Your task to perform on an android device: Open calendar and show me the fourth week of next month Image 0: 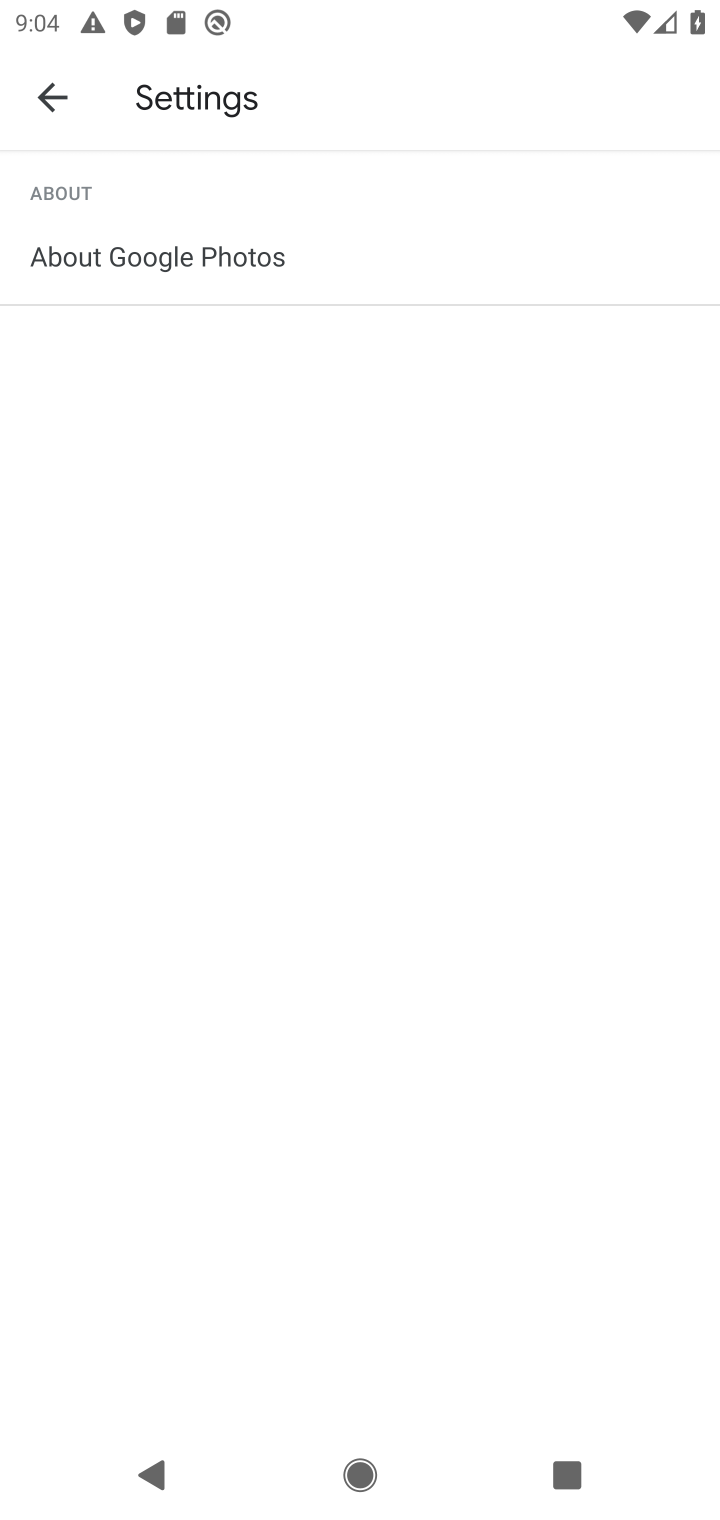
Step 0: press home button
Your task to perform on an android device: Open calendar and show me the fourth week of next month Image 1: 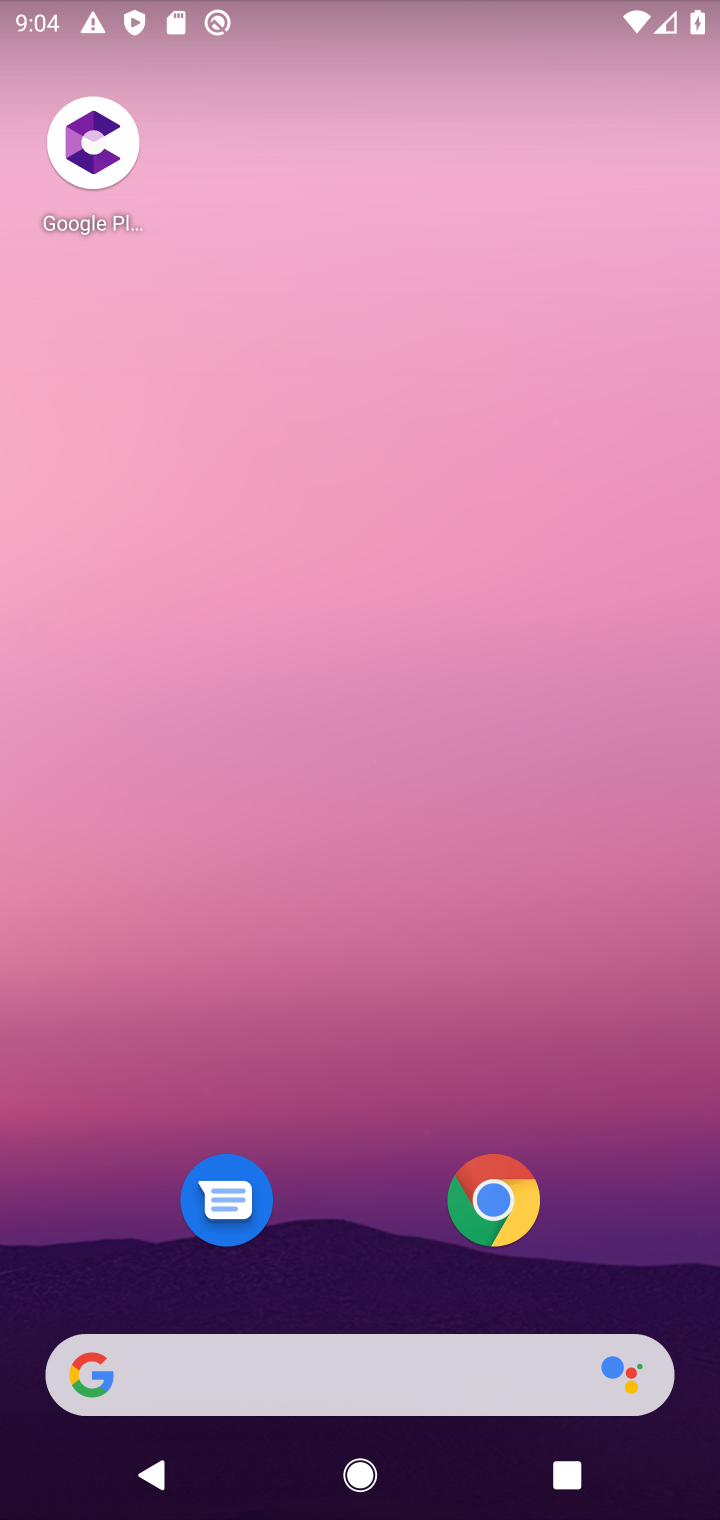
Step 1: drag from (289, 1373) to (382, 240)
Your task to perform on an android device: Open calendar and show me the fourth week of next month Image 2: 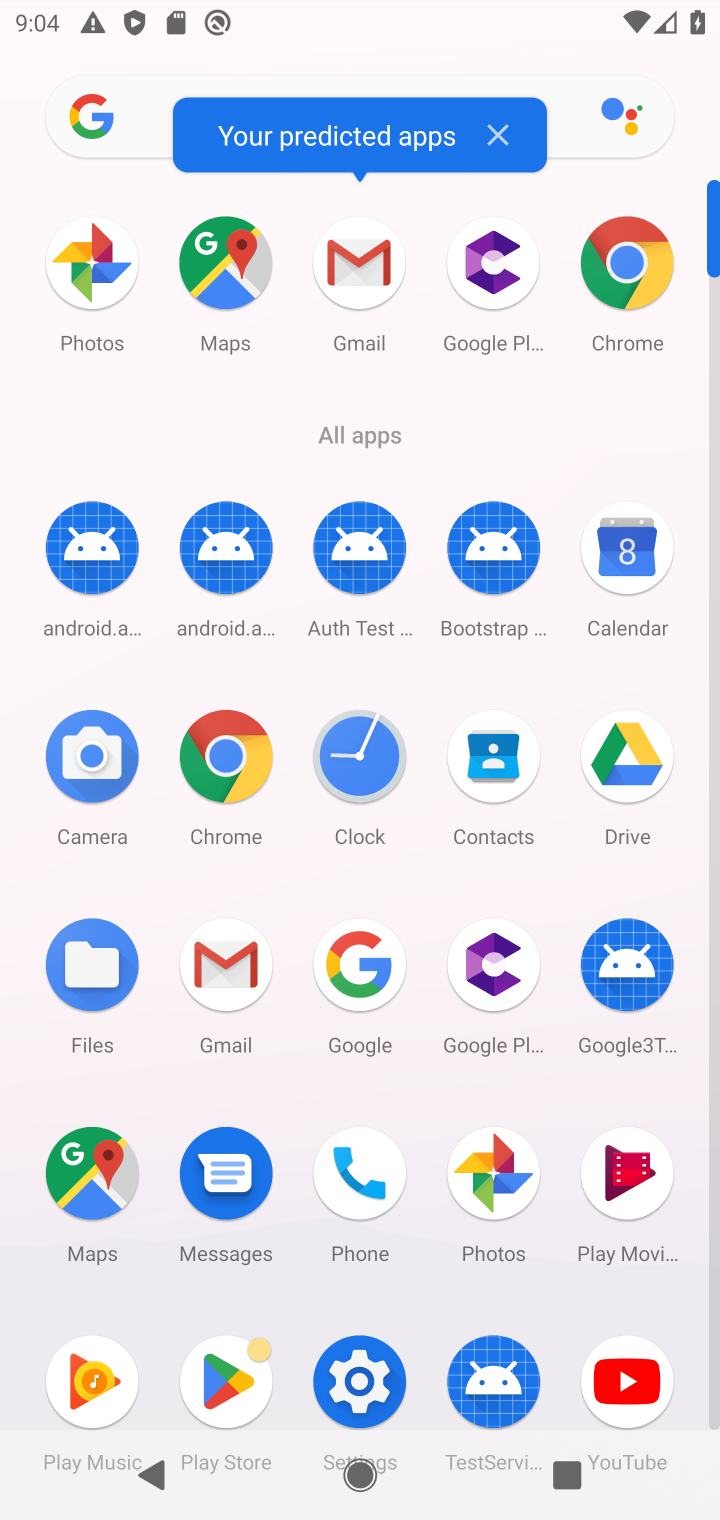
Step 2: click (631, 553)
Your task to perform on an android device: Open calendar and show me the fourth week of next month Image 3: 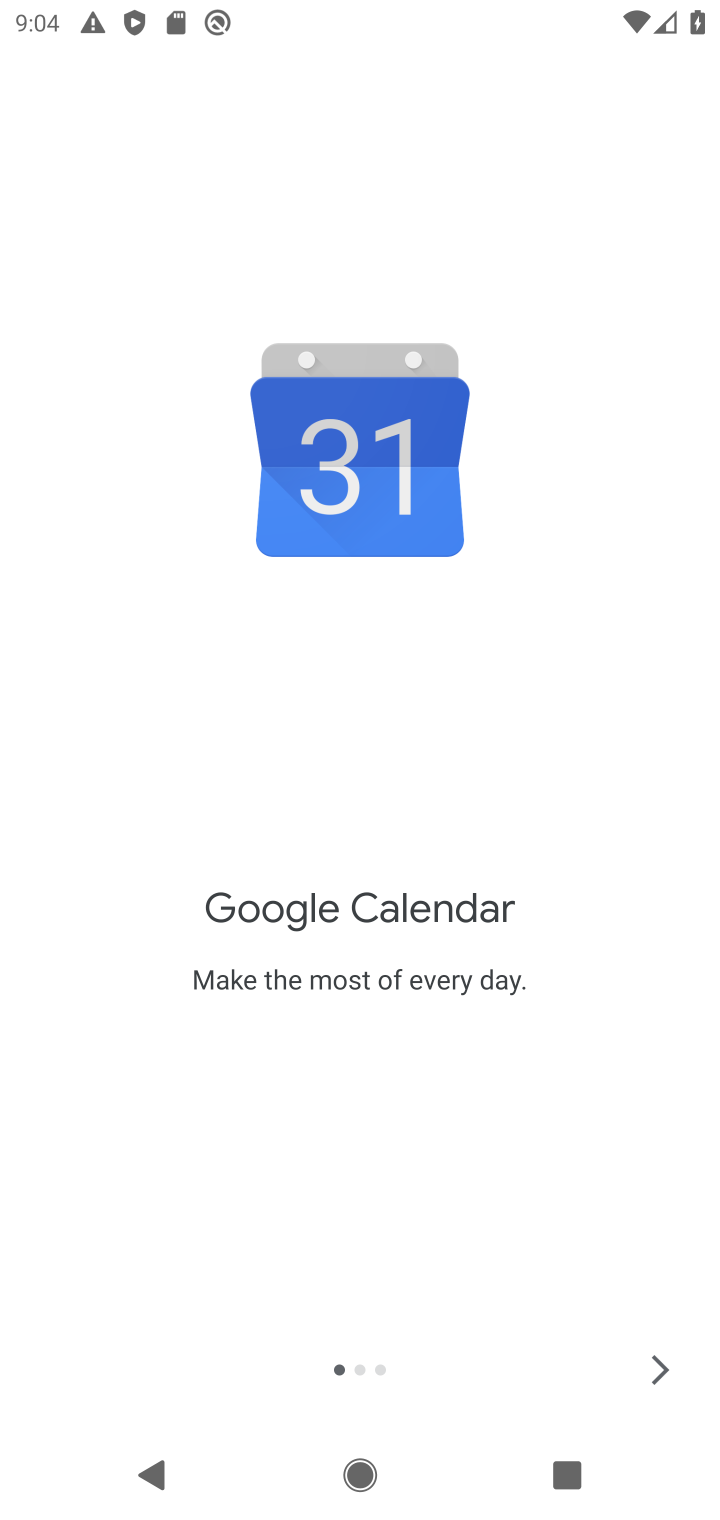
Step 3: click (633, 1377)
Your task to perform on an android device: Open calendar and show me the fourth week of next month Image 4: 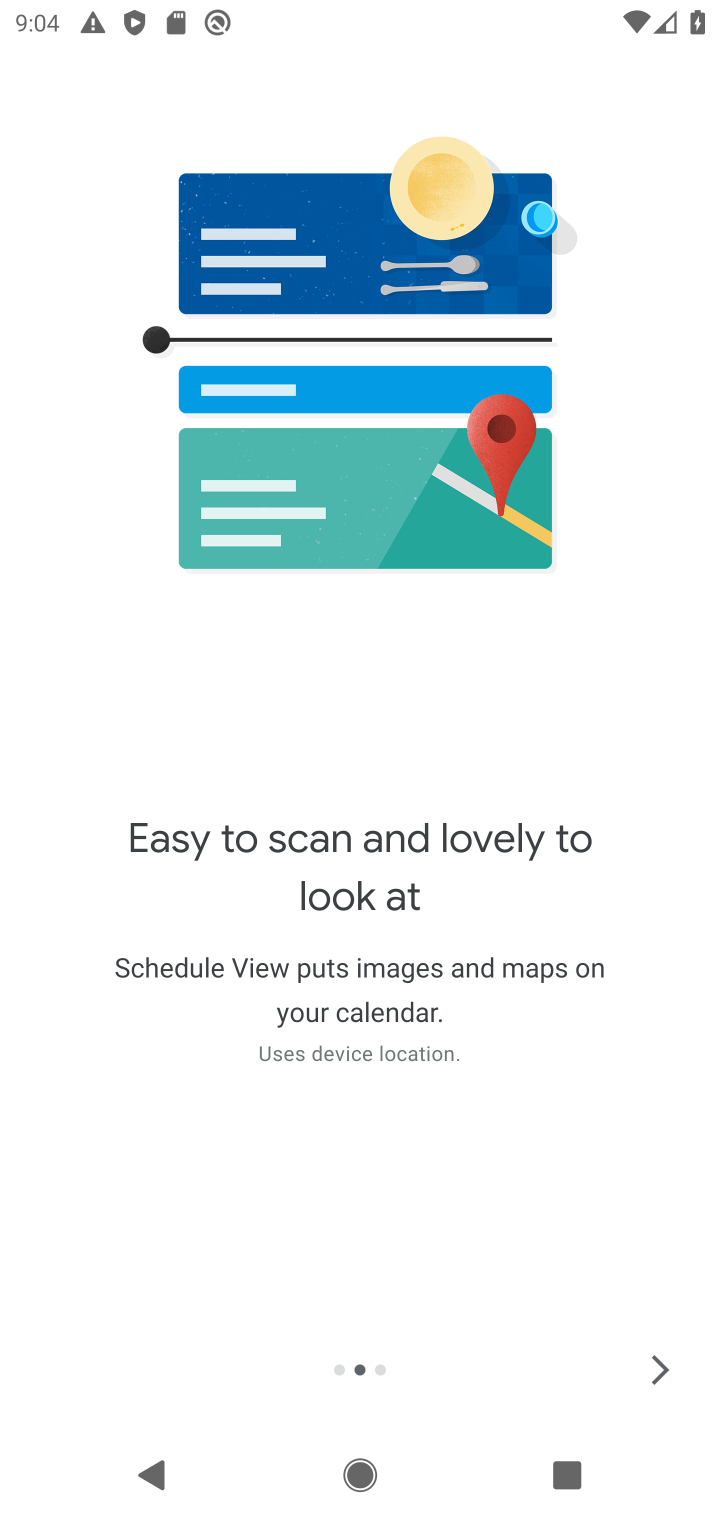
Step 4: click (660, 1362)
Your task to perform on an android device: Open calendar and show me the fourth week of next month Image 5: 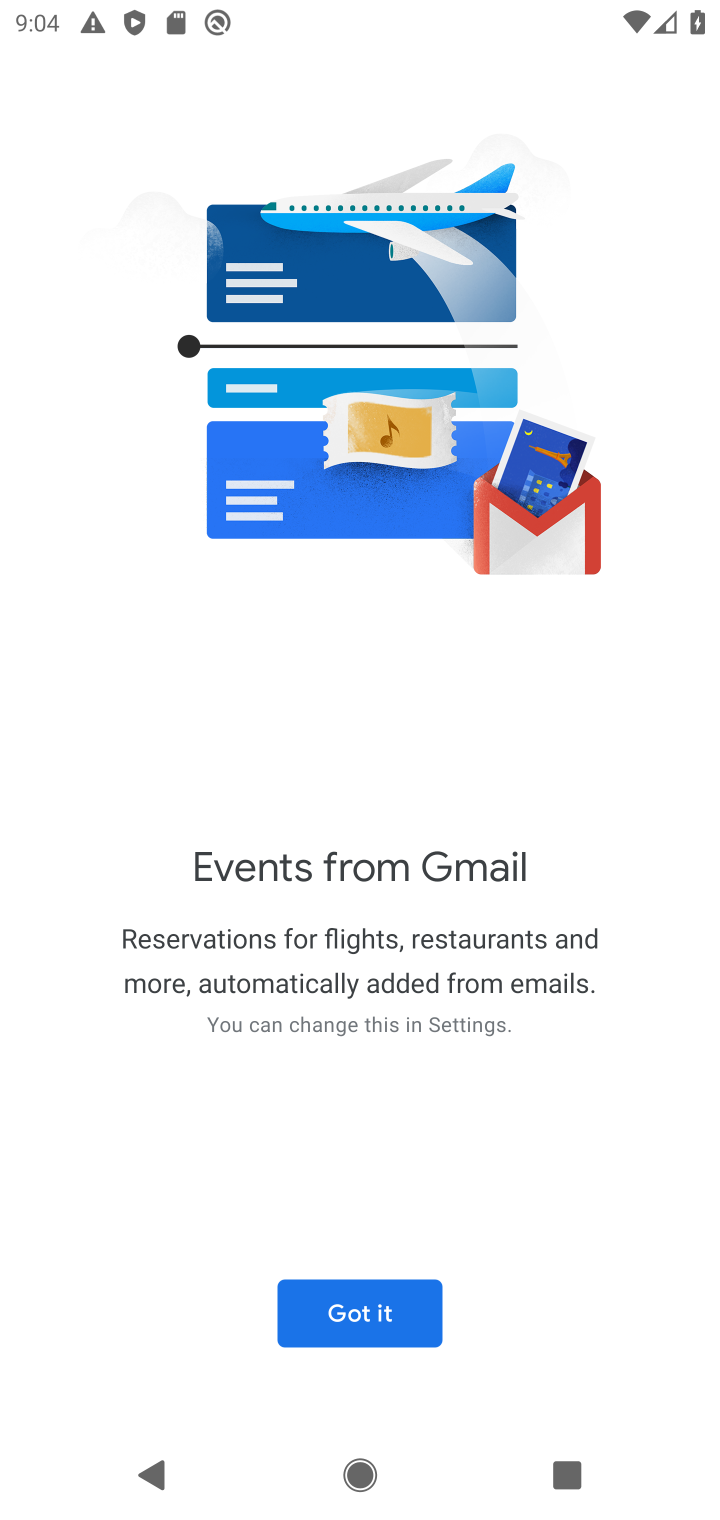
Step 5: click (416, 1321)
Your task to perform on an android device: Open calendar and show me the fourth week of next month Image 6: 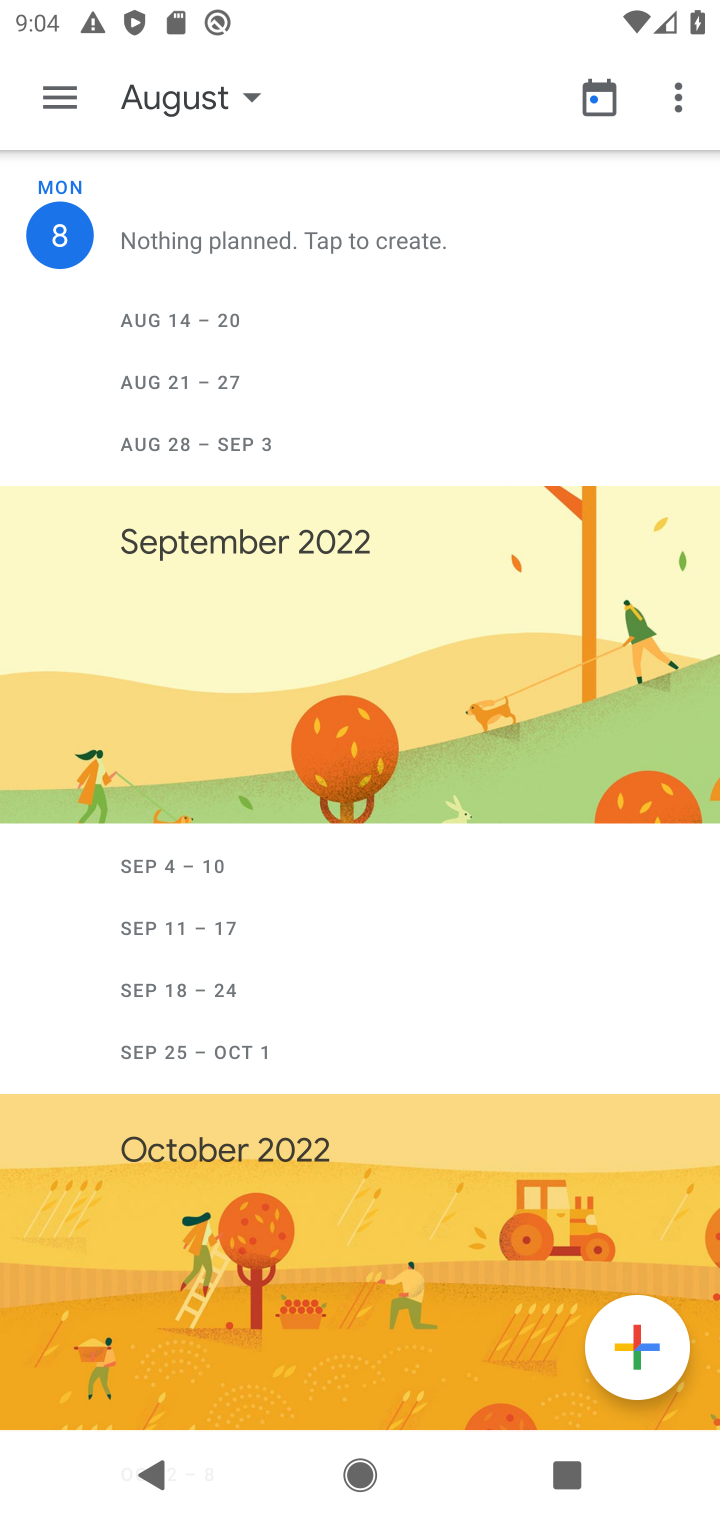
Step 6: click (188, 98)
Your task to perform on an android device: Open calendar and show me the fourth week of next month Image 7: 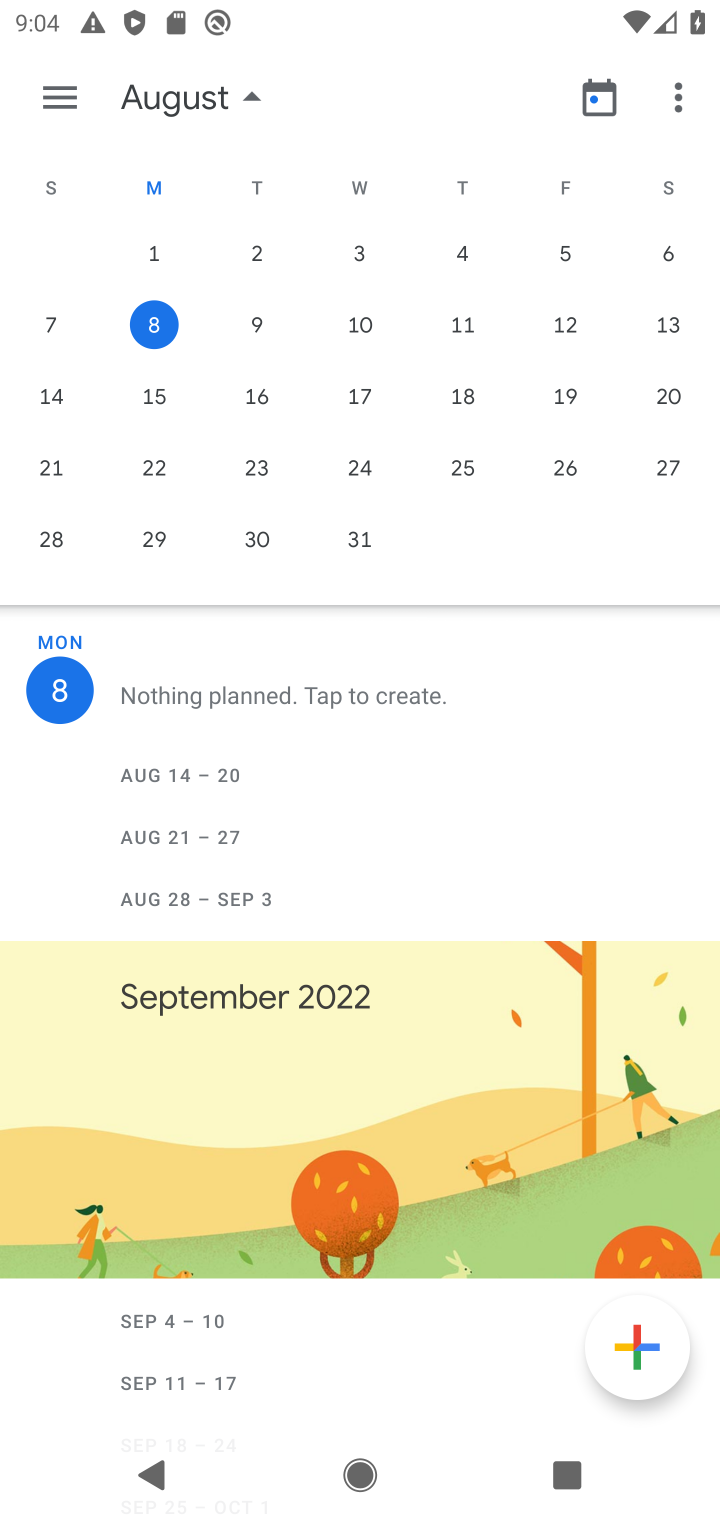
Step 7: drag from (644, 357) to (69, 401)
Your task to perform on an android device: Open calendar and show me the fourth week of next month Image 8: 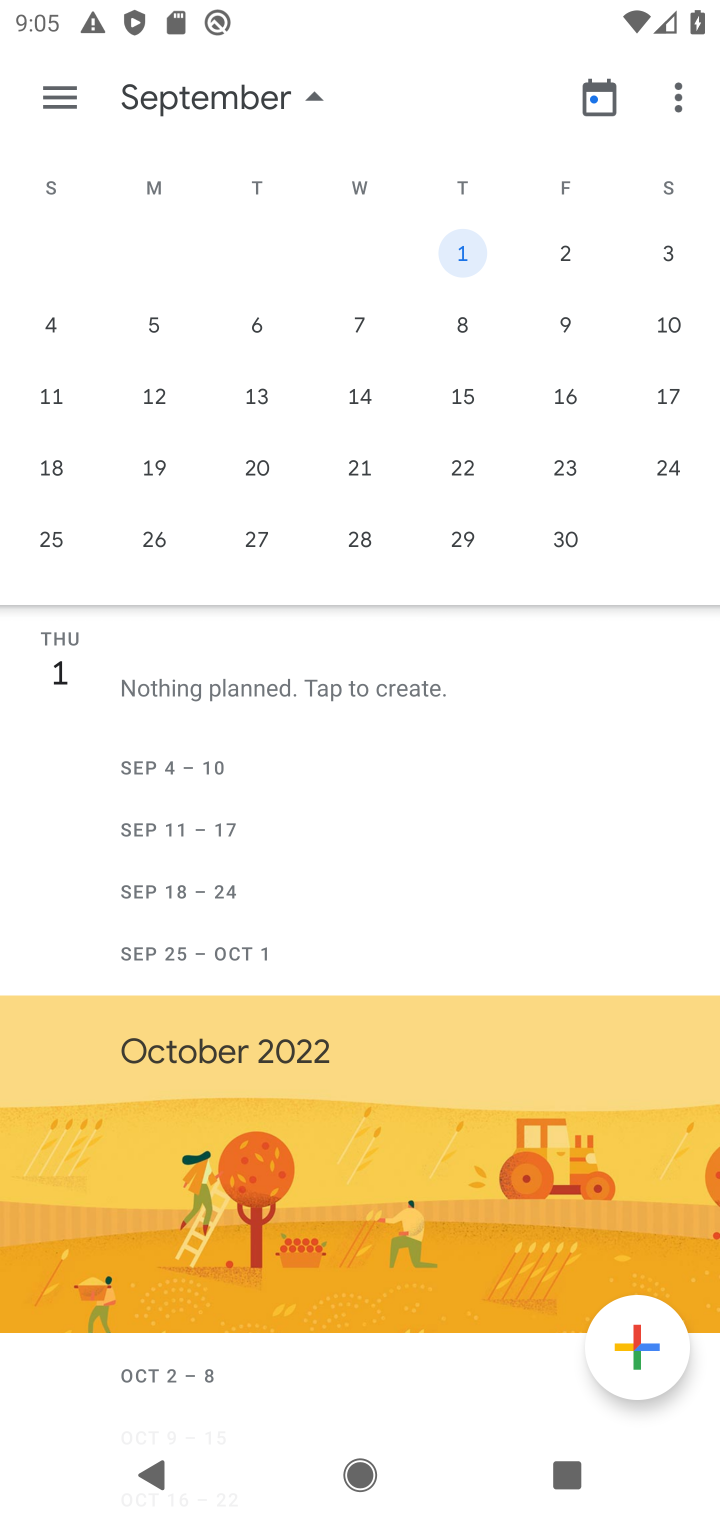
Step 8: click (58, 475)
Your task to perform on an android device: Open calendar and show me the fourth week of next month Image 9: 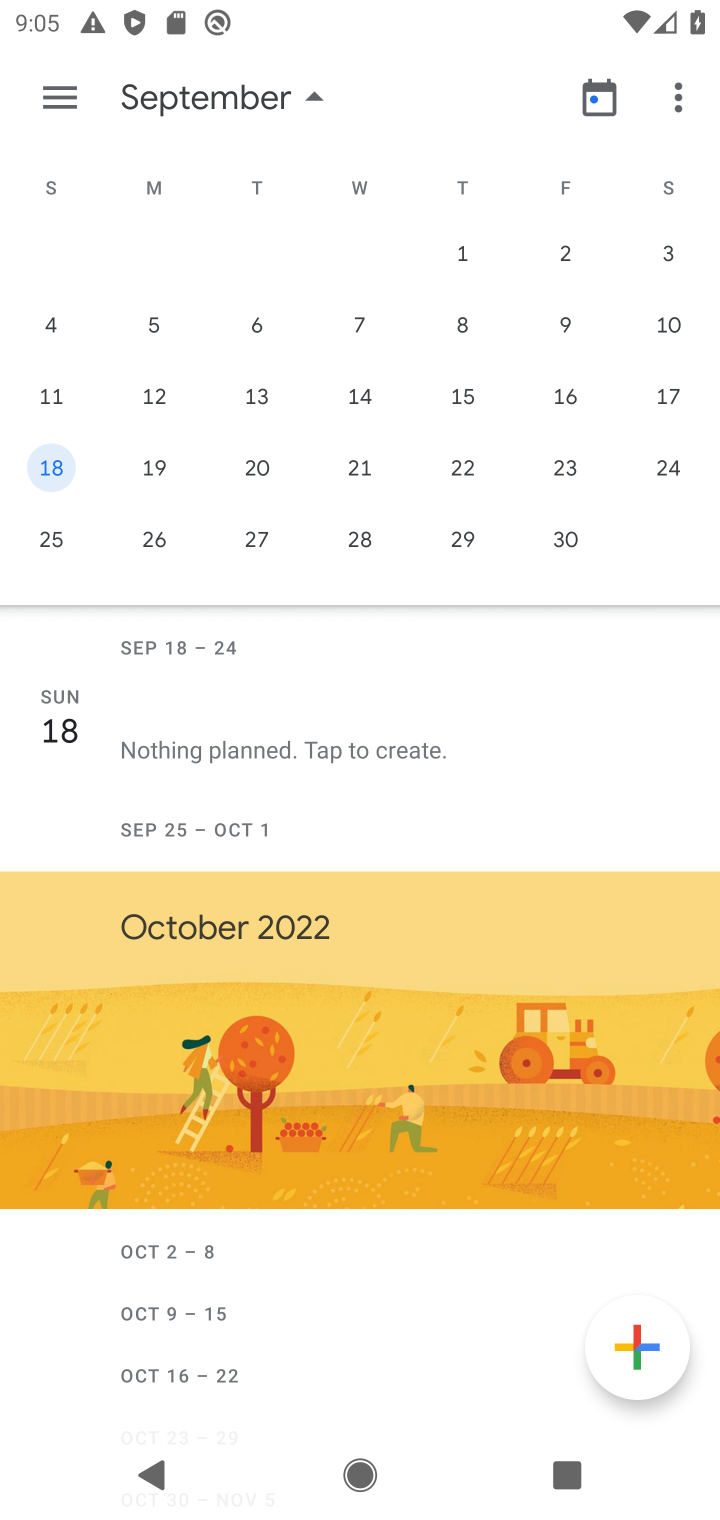
Step 9: click (46, 92)
Your task to perform on an android device: Open calendar and show me the fourth week of next month Image 10: 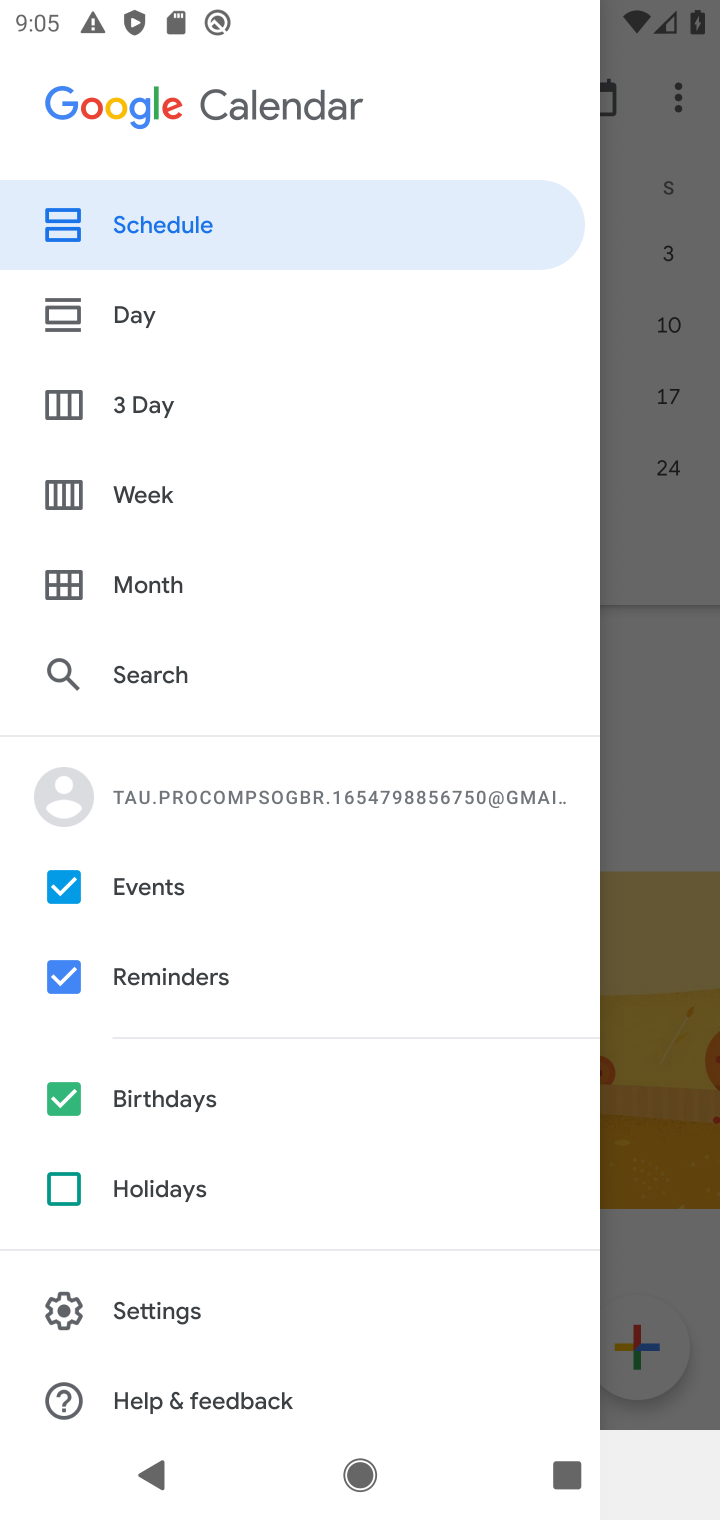
Step 10: click (146, 480)
Your task to perform on an android device: Open calendar and show me the fourth week of next month Image 11: 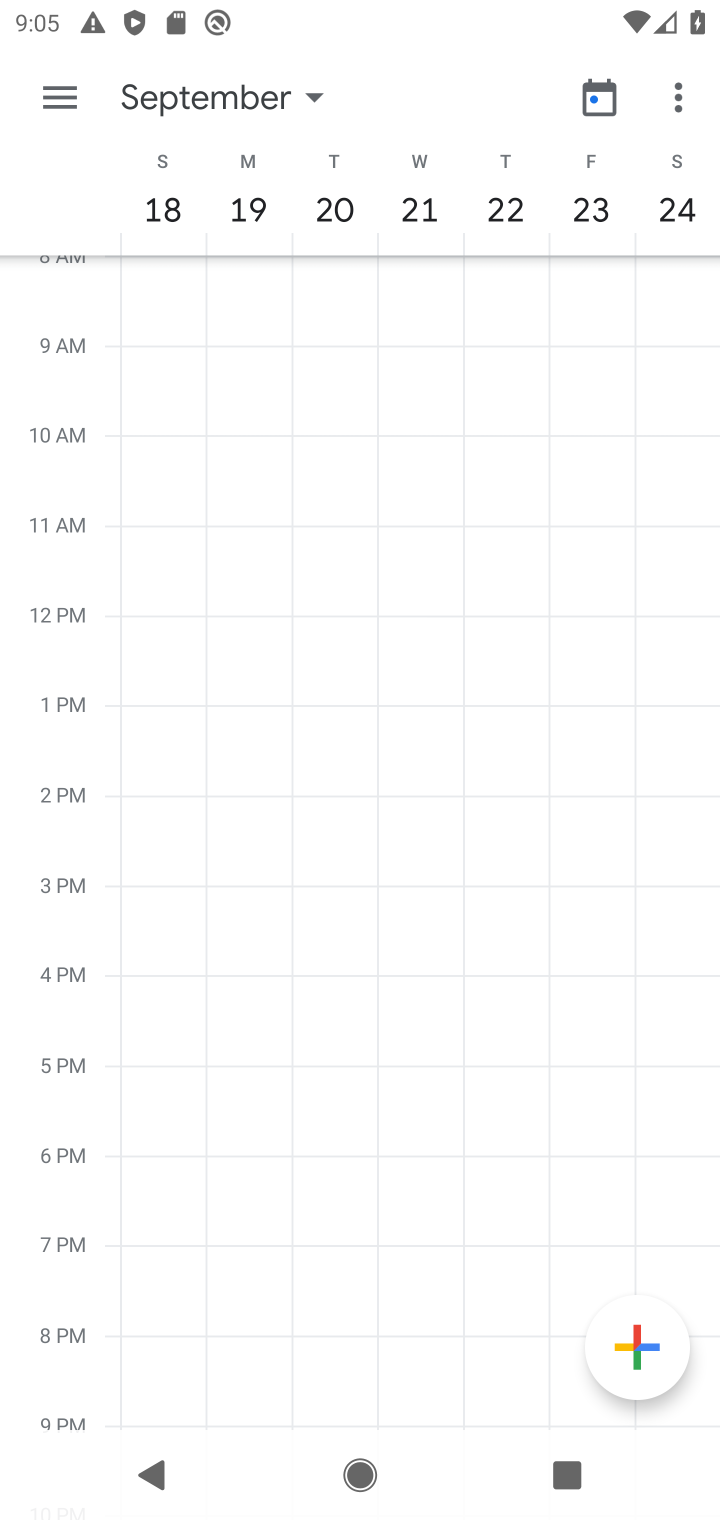
Step 11: task complete